Your task to perform on an android device: Do I have any events today? Image 0: 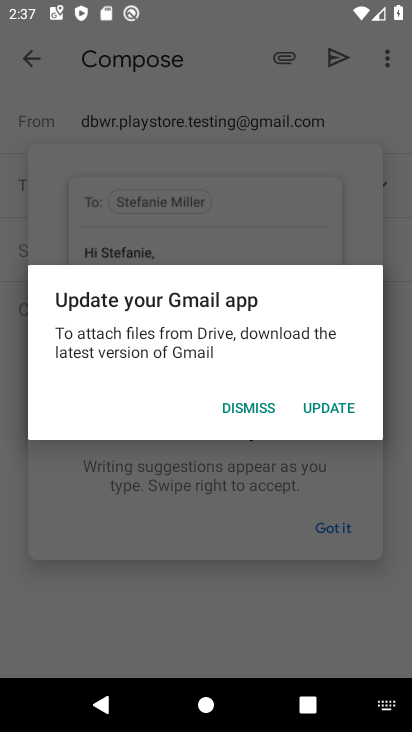
Step 0: press home button
Your task to perform on an android device: Do I have any events today? Image 1: 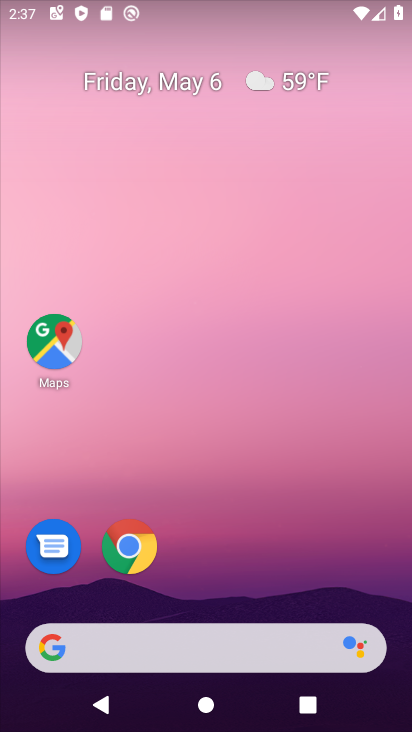
Step 1: click (172, 81)
Your task to perform on an android device: Do I have any events today? Image 2: 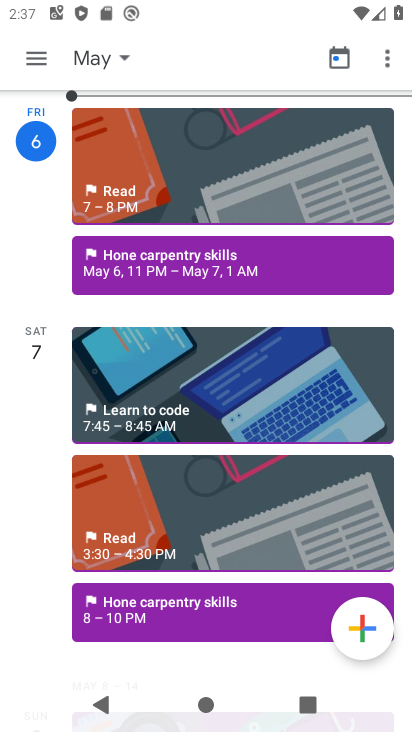
Step 2: click (39, 64)
Your task to perform on an android device: Do I have any events today? Image 3: 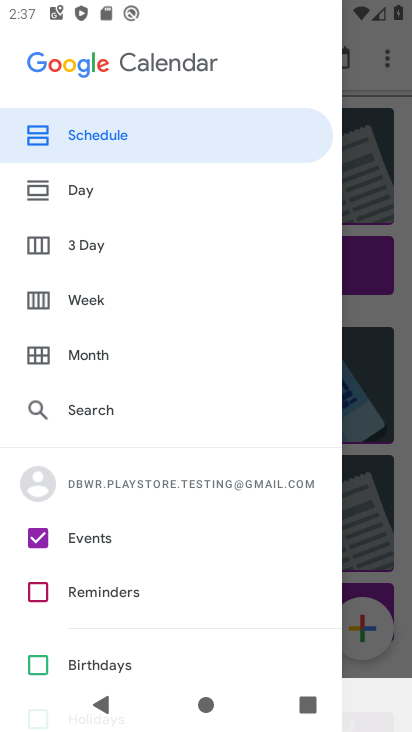
Step 3: click (391, 326)
Your task to perform on an android device: Do I have any events today? Image 4: 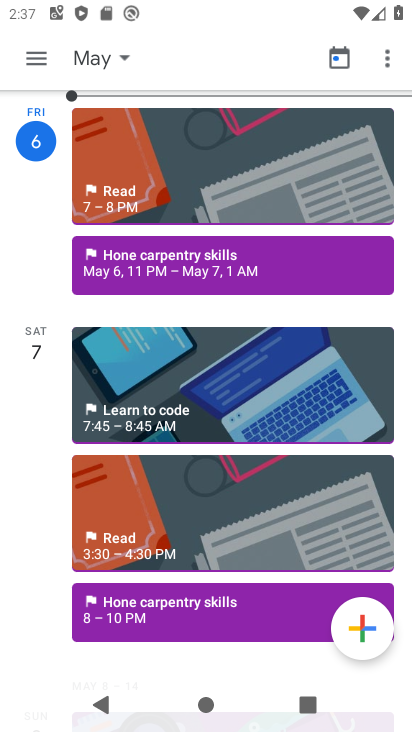
Step 4: task complete